Your task to perform on an android device: Open Google Chrome and click the shortcut for Amazon.com Image 0: 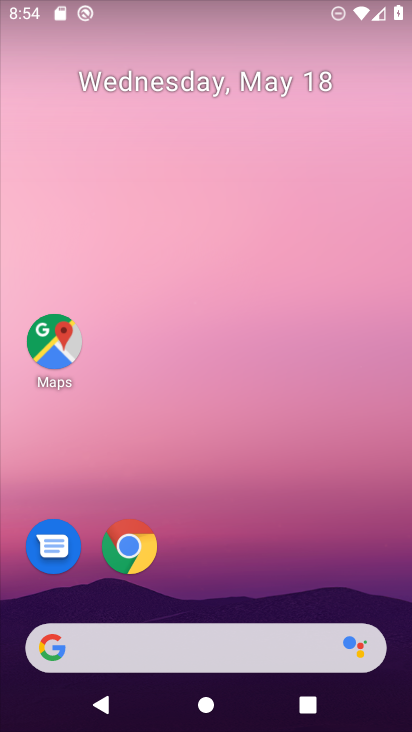
Step 0: drag from (238, 668) to (399, 73)
Your task to perform on an android device: Open Google Chrome and click the shortcut for Amazon.com Image 1: 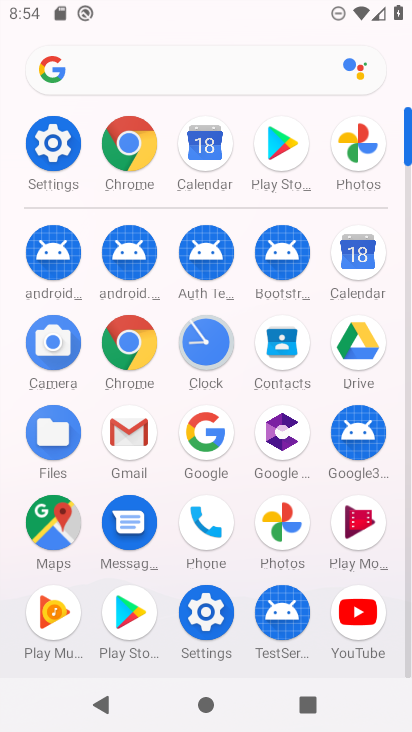
Step 1: click (125, 163)
Your task to perform on an android device: Open Google Chrome and click the shortcut for Amazon.com Image 2: 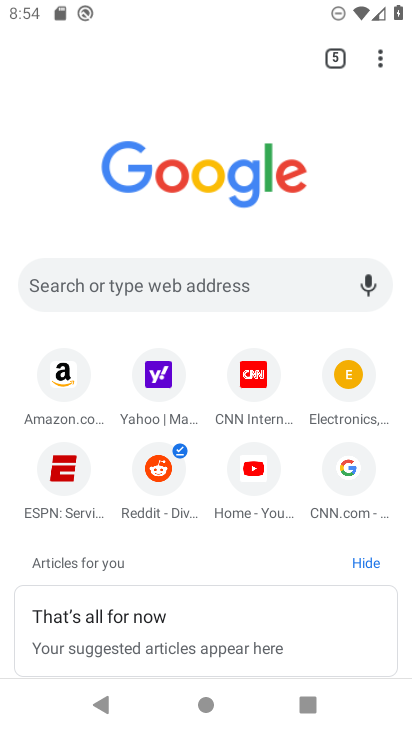
Step 2: click (72, 400)
Your task to perform on an android device: Open Google Chrome and click the shortcut for Amazon.com Image 3: 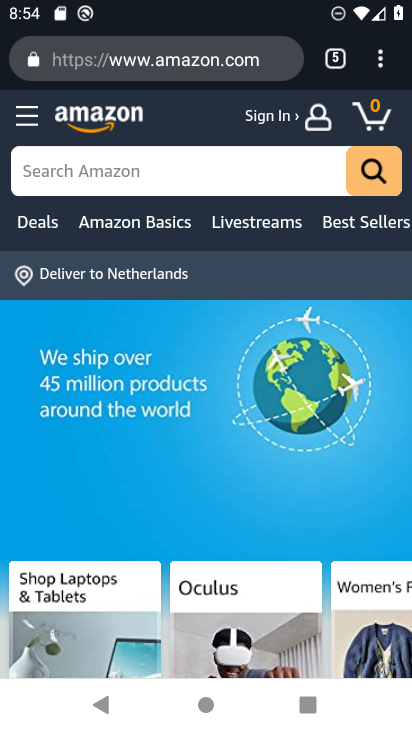
Step 3: click (376, 52)
Your task to perform on an android device: Open Google Chrome and click the shortcut for Amazon.com Image 4: 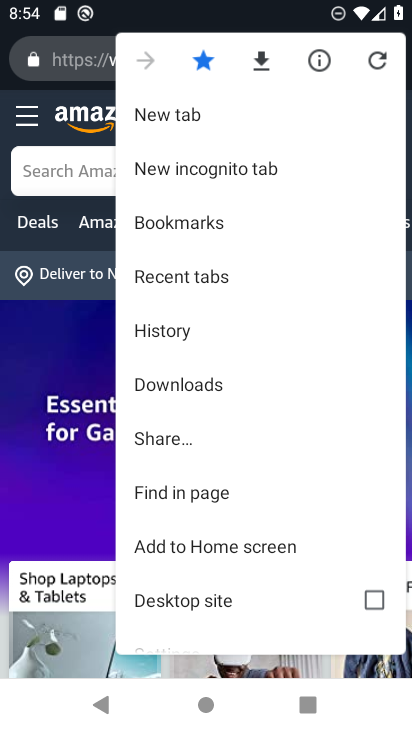
Step 4: click (206, 552)
Your task to perform on an android device: Open Google Chrome and click the shortcut for Amazon.com Image 5: 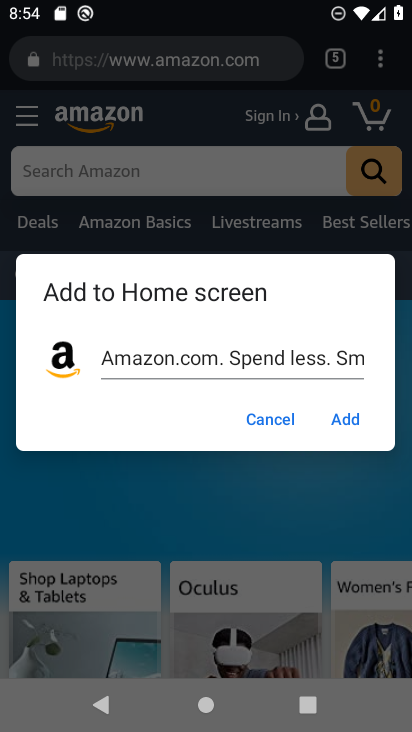
Step 5: click (334, 426)
Your task to perform on an android device: Open Google Chrome and click the shortcut for Amazon.com Image 6: 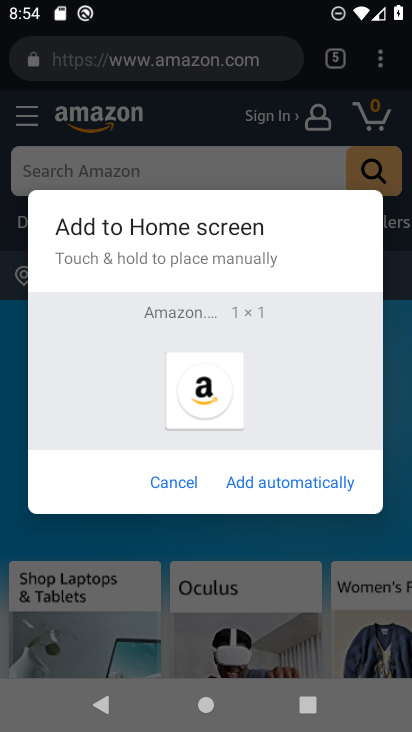
Step 6: click (312, 482)
Your task to perform on an android device: Open Google Chrome and click the shortcut for Amazon.com Image 7: 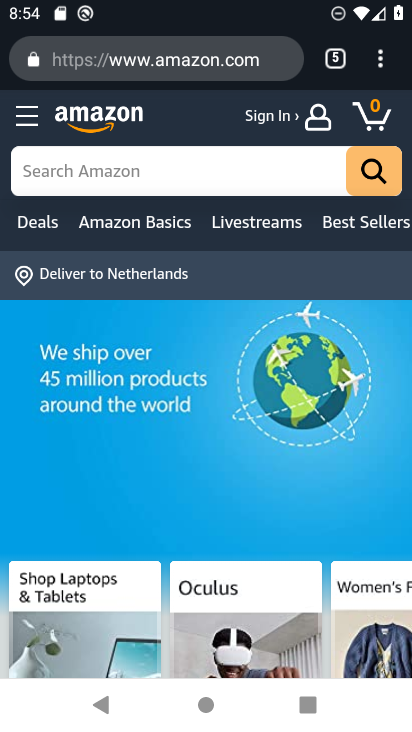
Step 7: task complete